Your task to perform on an android device: check data usage Image 0: 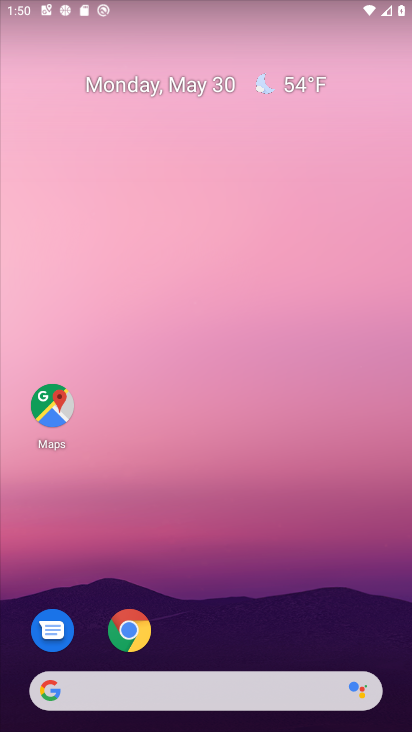
Step 0: press home button
Your task to perform on an android device: check data usage Image 1: 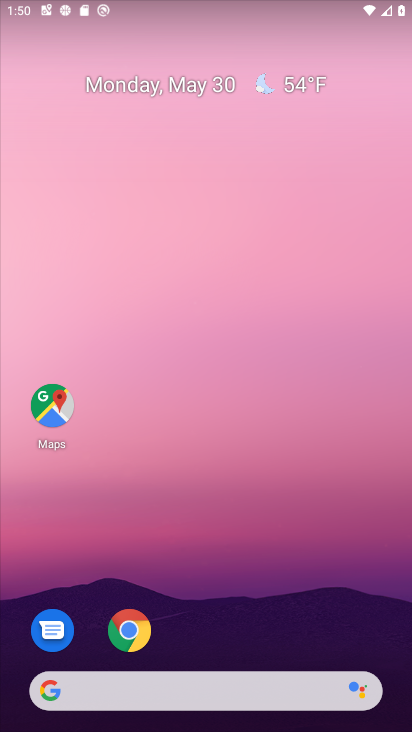
Step 1: click (324, 69)
Your task to perform on an android device: check data usage Image 2: 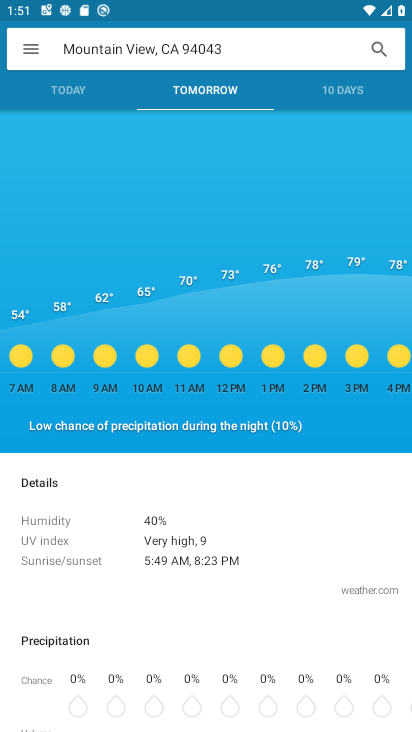
Step 2: press home button
Your task to perform on an android device: check data usage Image 3: 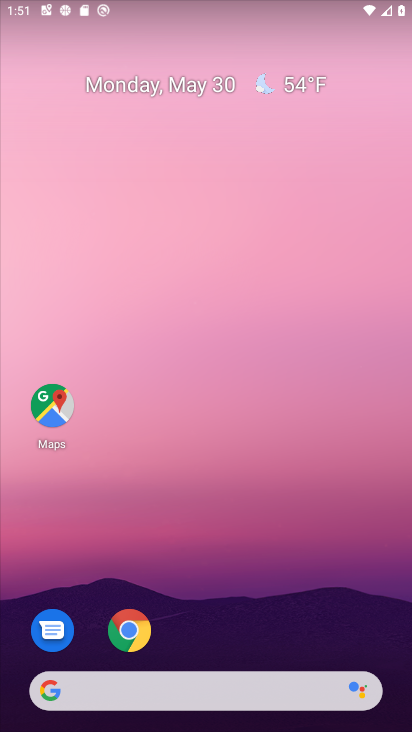
Step 3: drag from (196, 671) to (314, 170)
Your task to perform on an android device: check data usage Image 4: 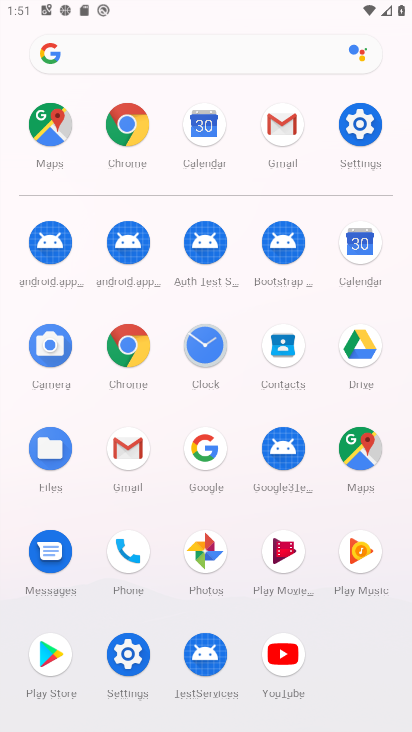
Step 4: click (363, 138)
Your task to perform on an android device: check data usage Image 5: 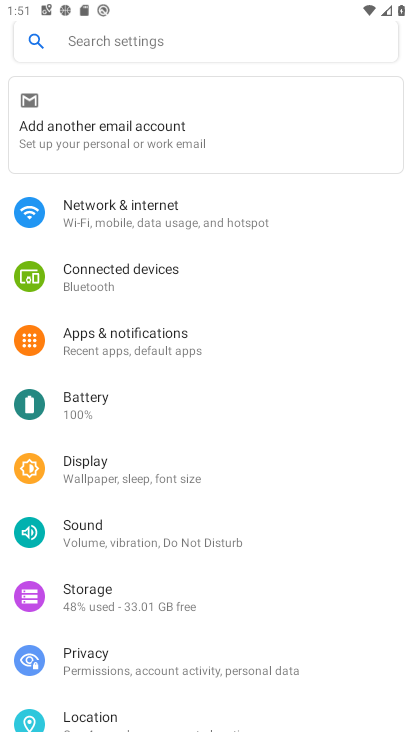
Step 5: click (140, 201)
Your task to perform on an android device: check data usage Image 6: 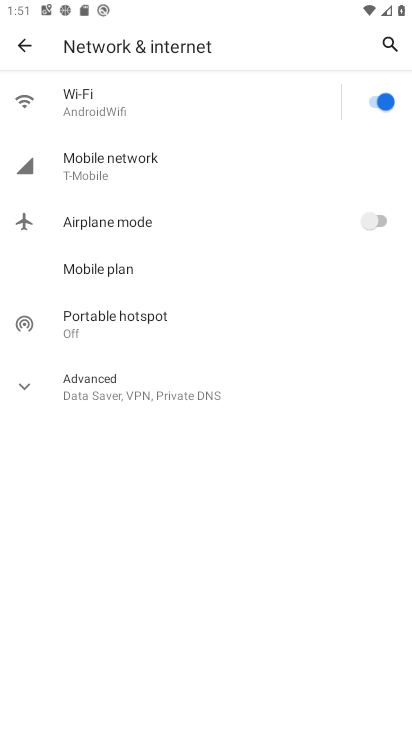
Step 6: click (92, 109)
Your task to perform on an android device: check data usage Image 7: 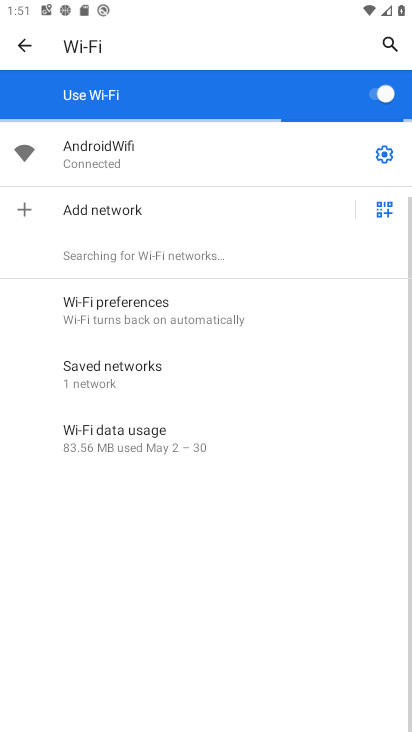
Step 7: click (128, 437)
Your task to perform on an android device: check data usage Image 8: 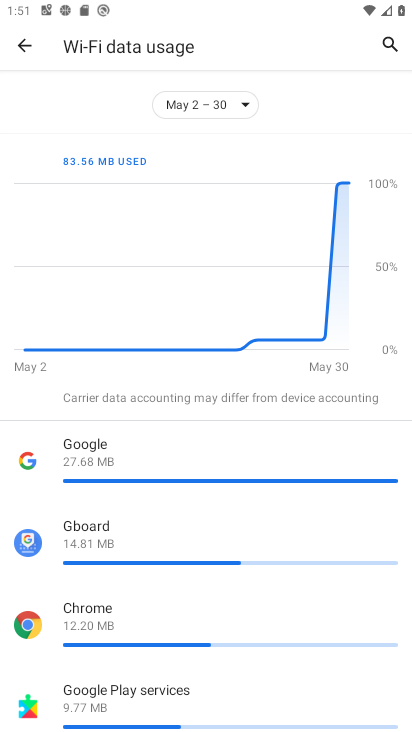
Step 8: task complete